Your task to perform on an android device: change timer sound Image 0: 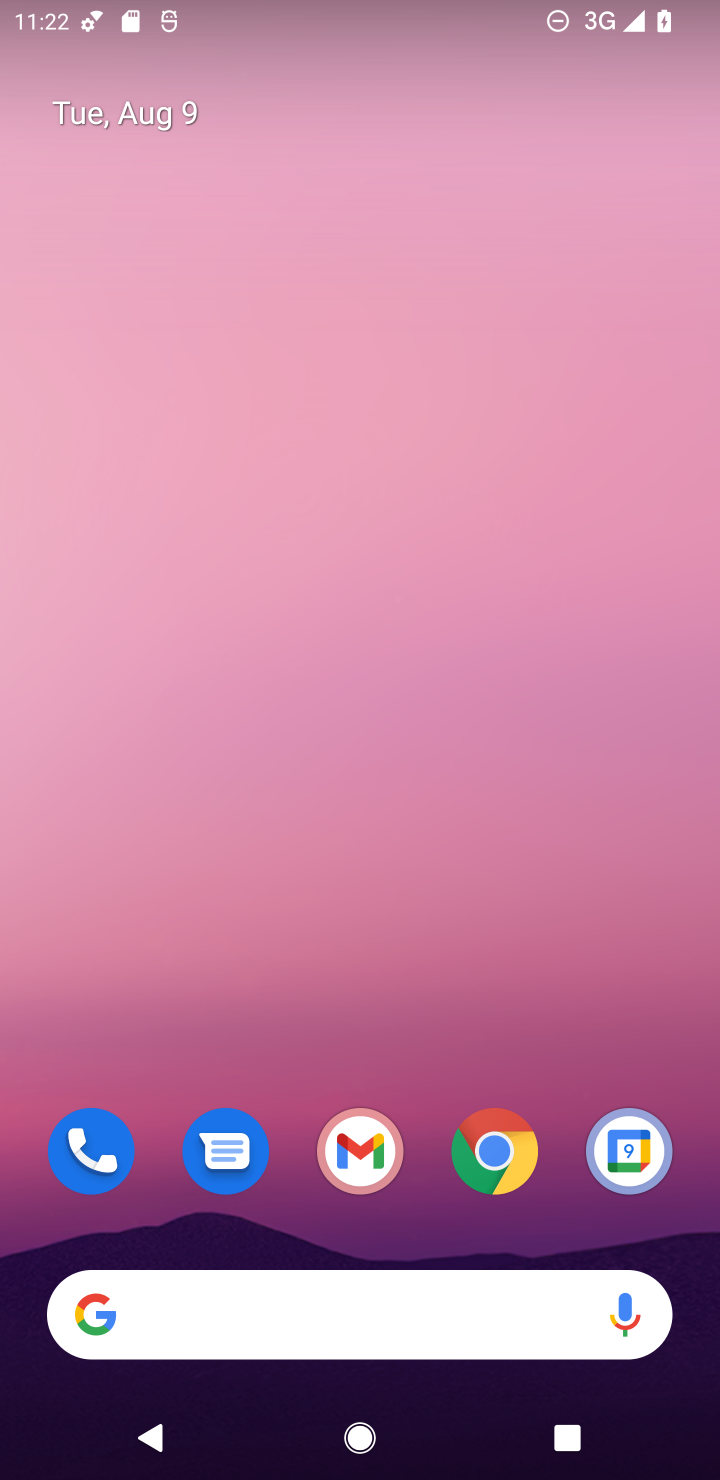
Step 0: drag from (393, 900) to (356, 379)
Your task to perform on an android device: change timer sound Image 1: 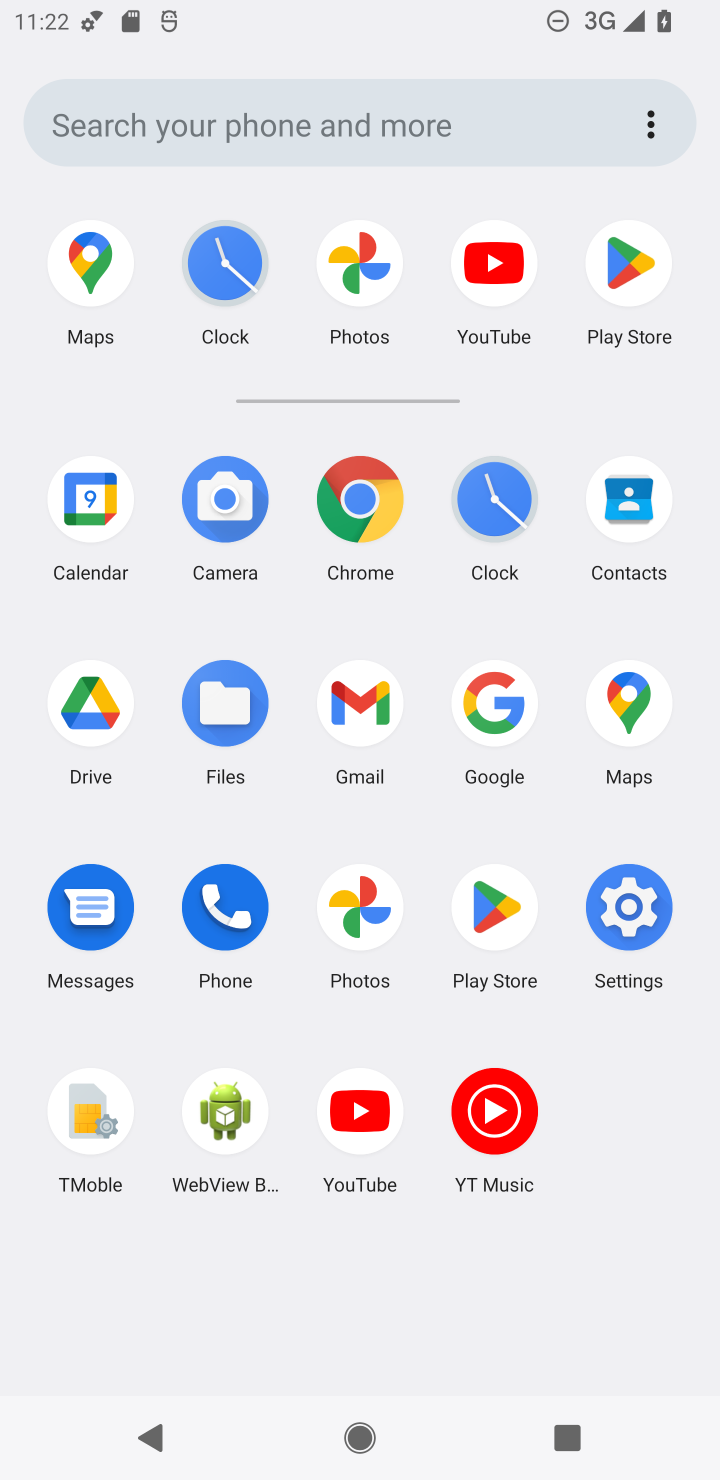
Step 1: click (310, 152)
Your task to perform on an android device: change timer sound Image 2: 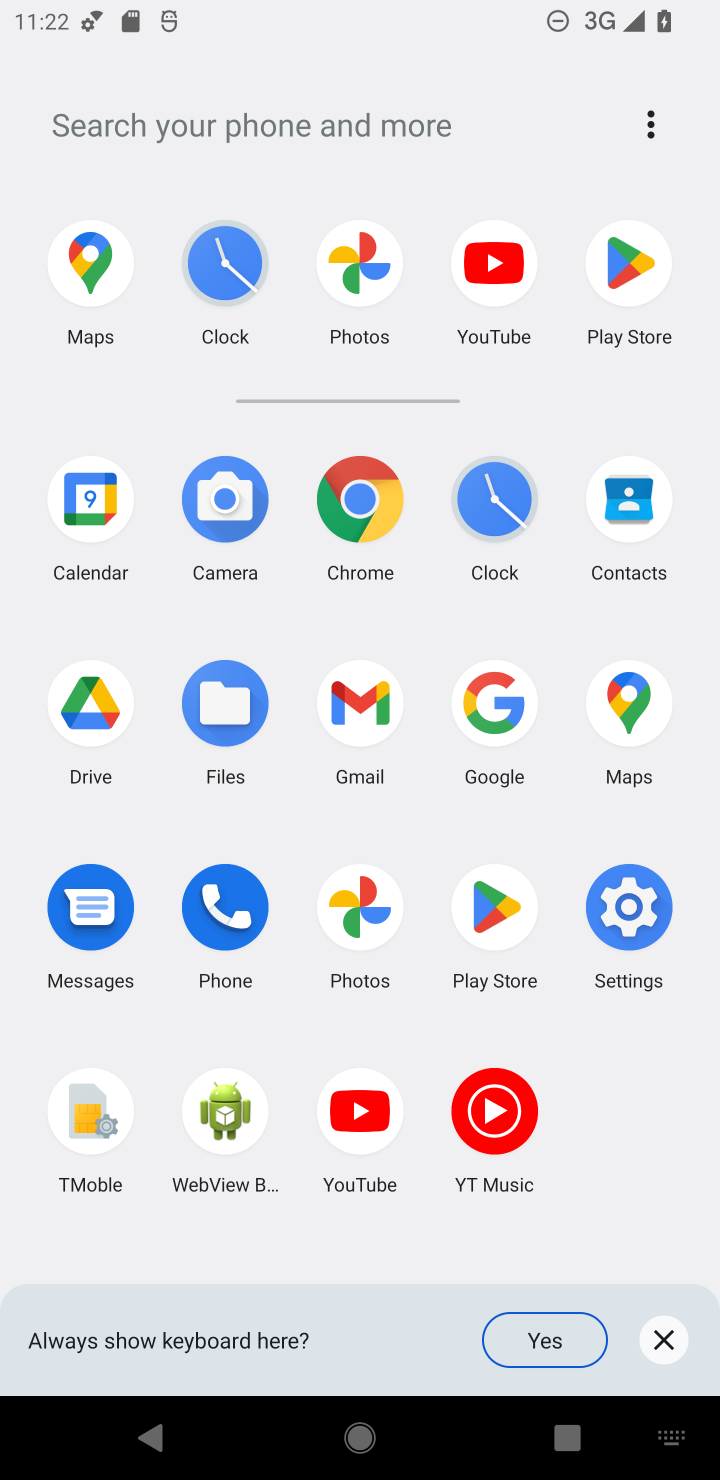
Step 2: click (213, 273)
Your task to perform on an android device: change timer sound Image 3: 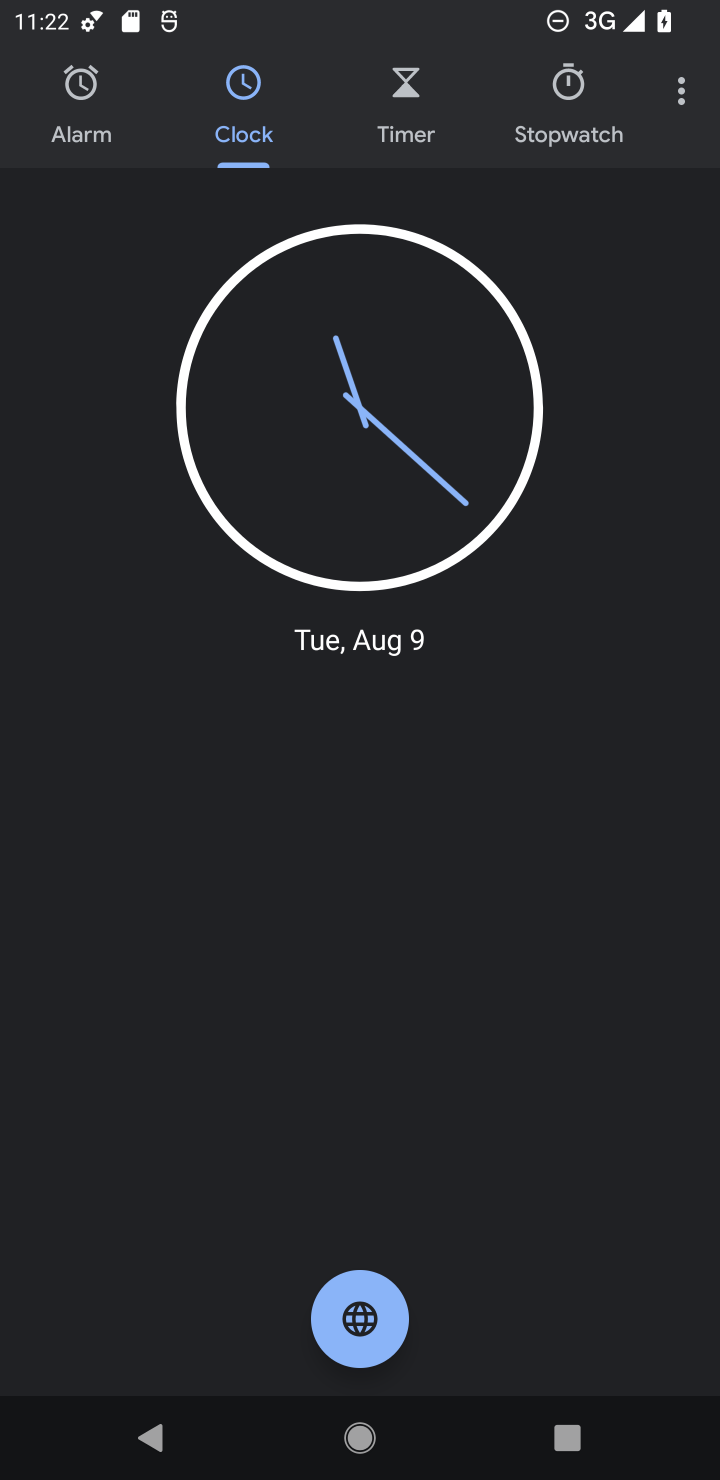
Step 3: click (668, 100)
Your task to perform on an android device: change timer sound Image 4: 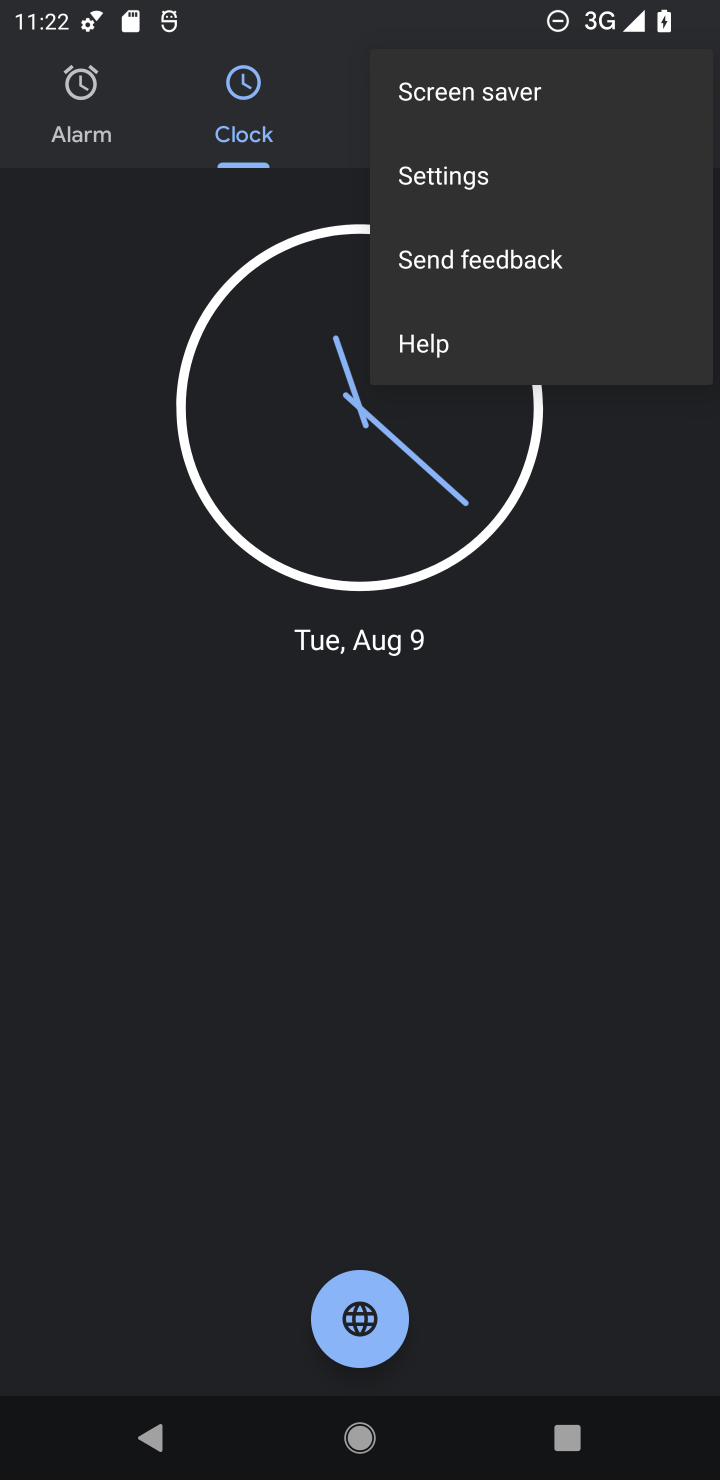
Step 4: click (674, 102)
Your task to perform on an android device: change timer sound Image 5: 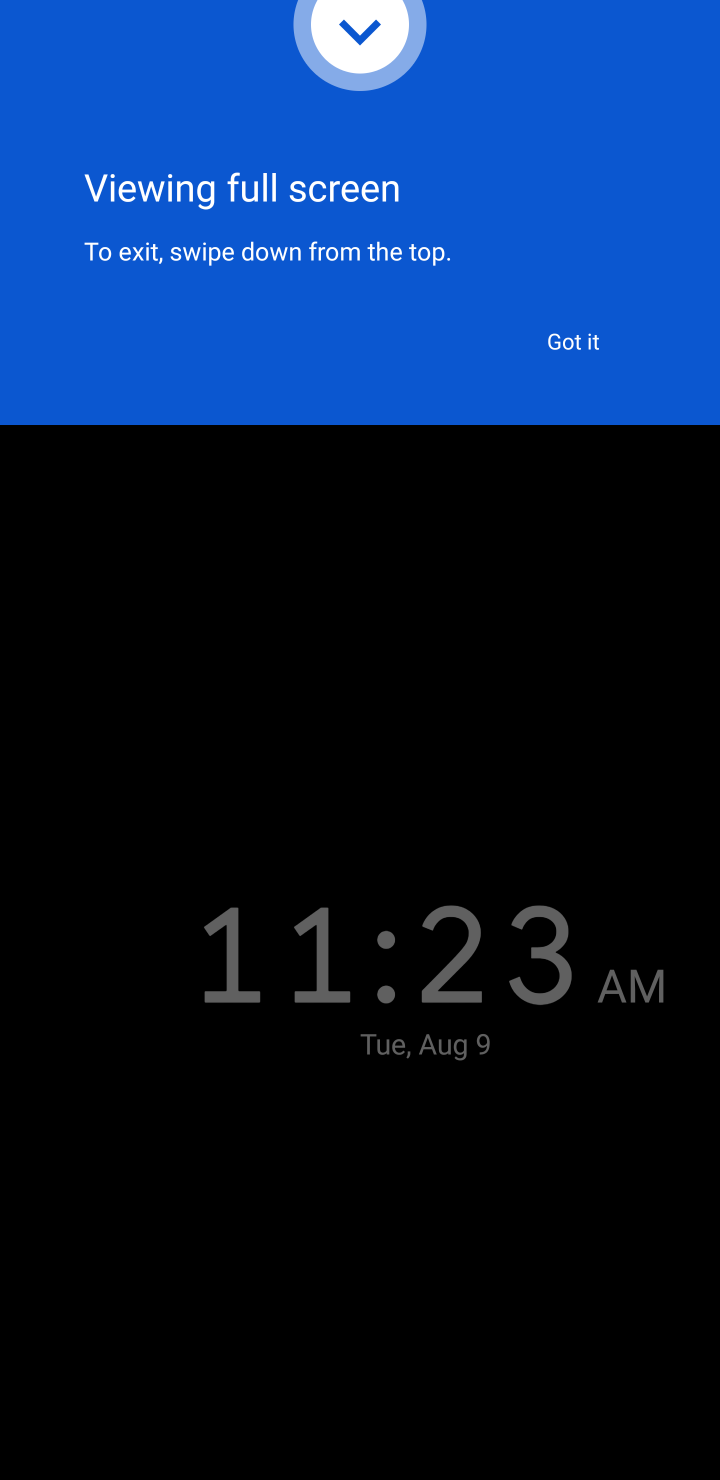
Step 5: click (563, 341)
Your task to perform on an android device: change timer sound Image 6: 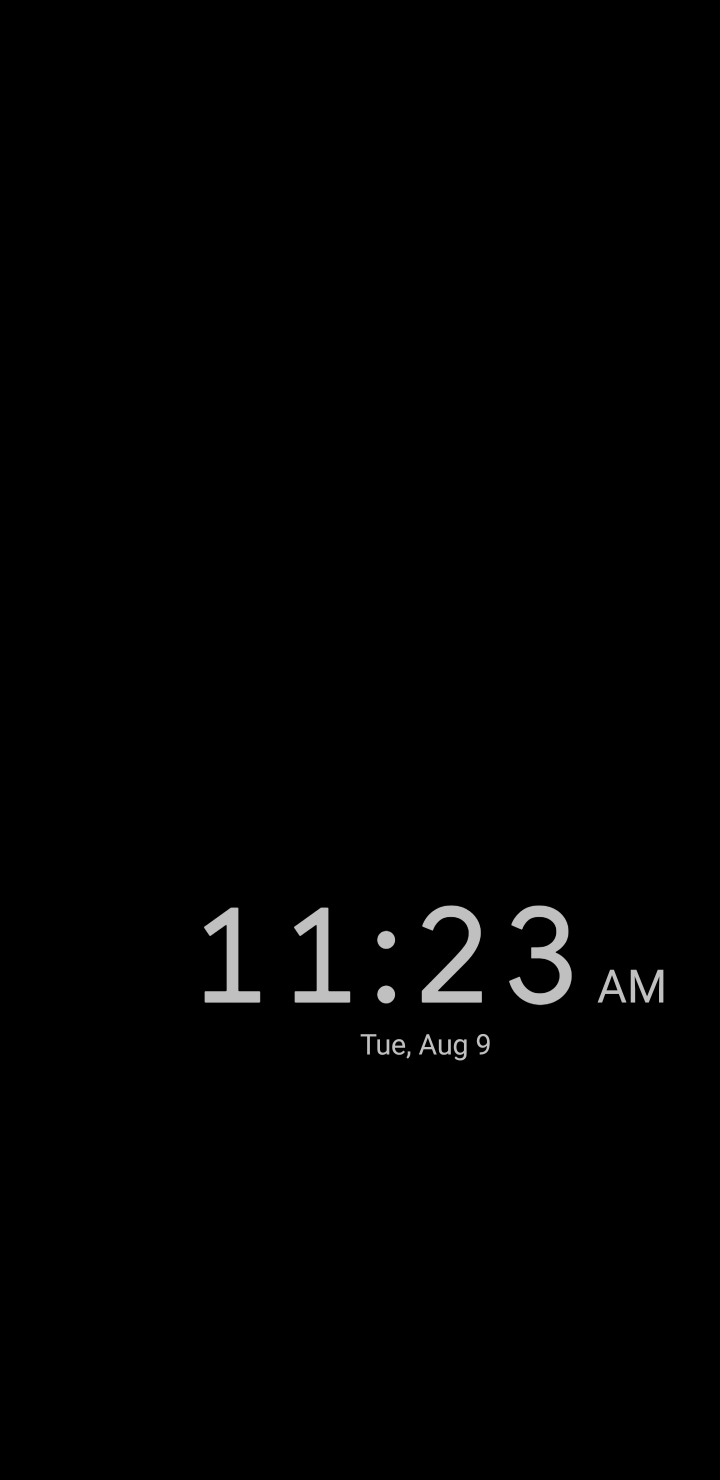
Step 6: click (402, 1126)
Your task to perform on an android device: change timer sound Image 7: 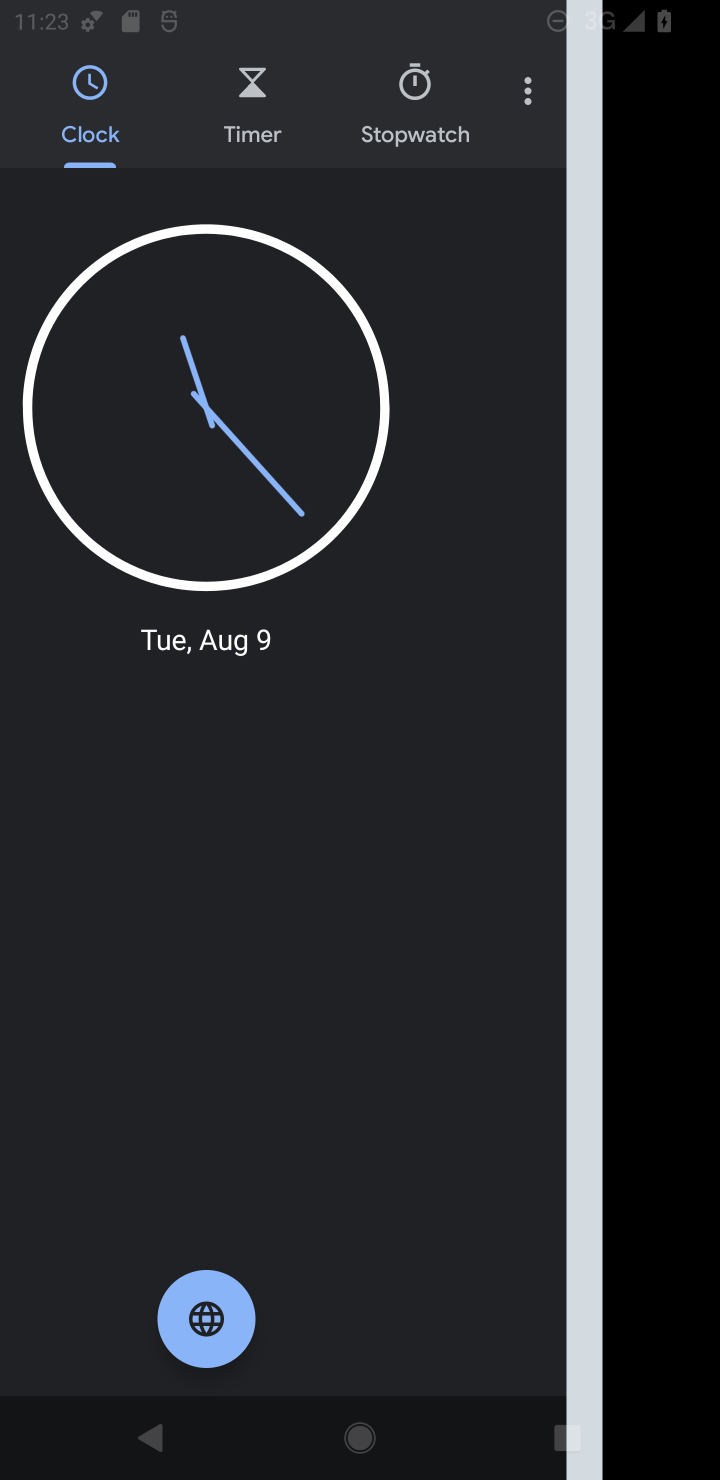
Step 7: click (402, 1126)
Your task to perform on an android device: change timer sound Image 8: 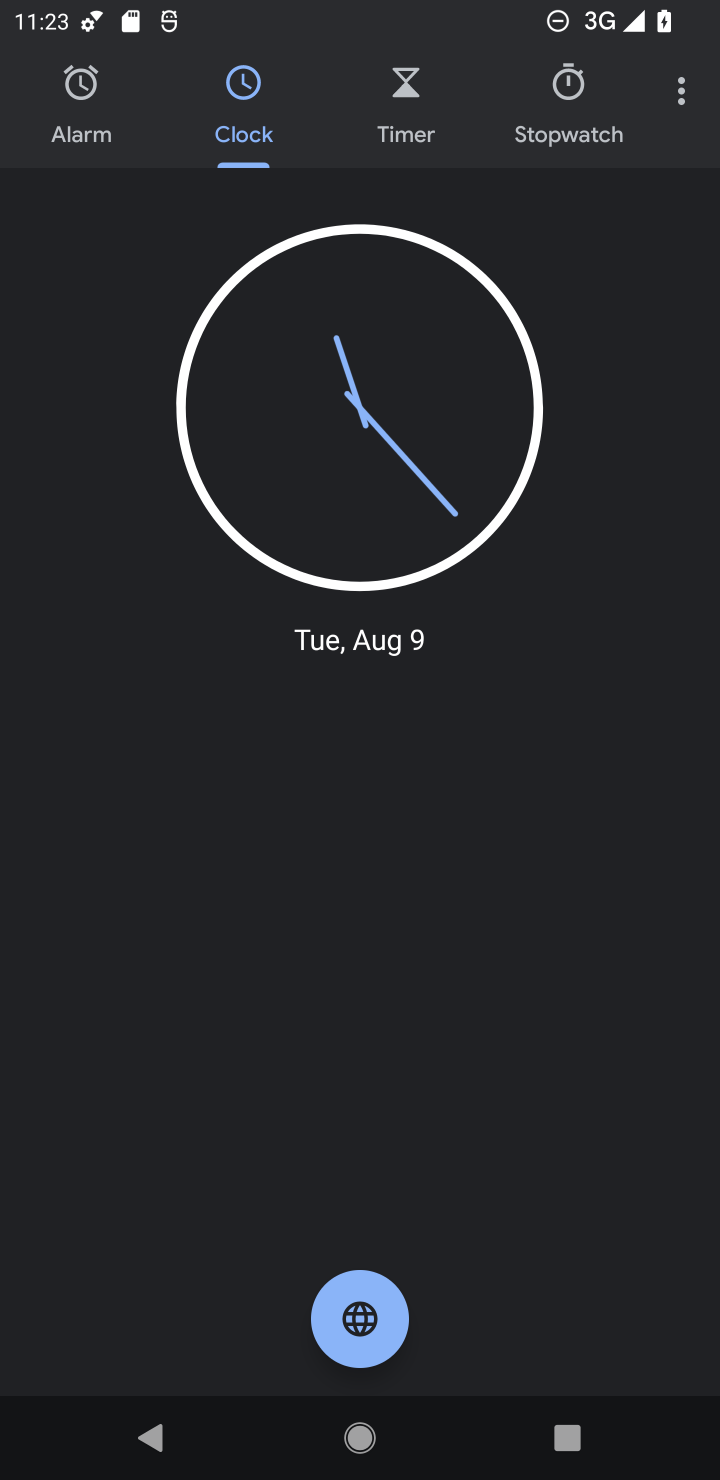
Step 8: click (676, 81)
Your task to perform on an android device: change timer sound Image 9: 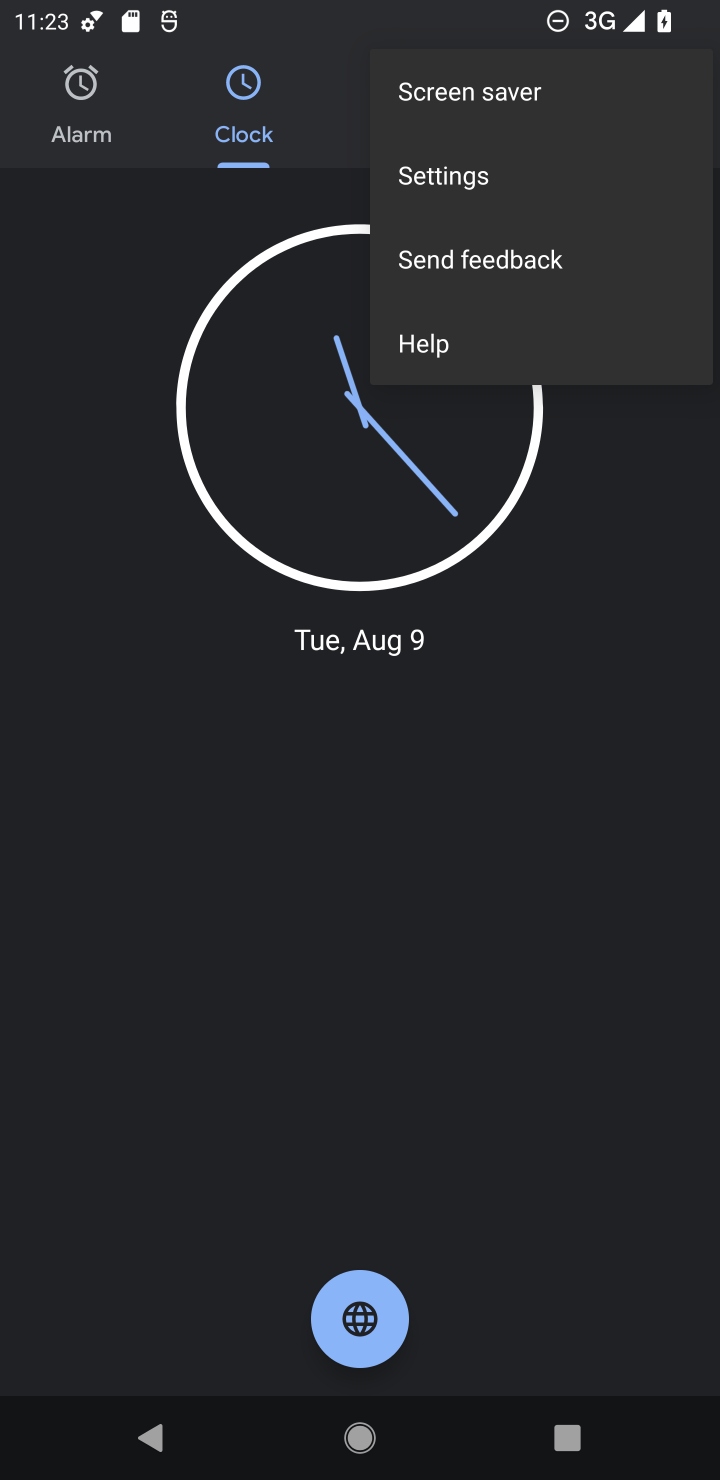
Step 9: click (517, 198)
Your task to perform on an android device: change timer sound Image 10: 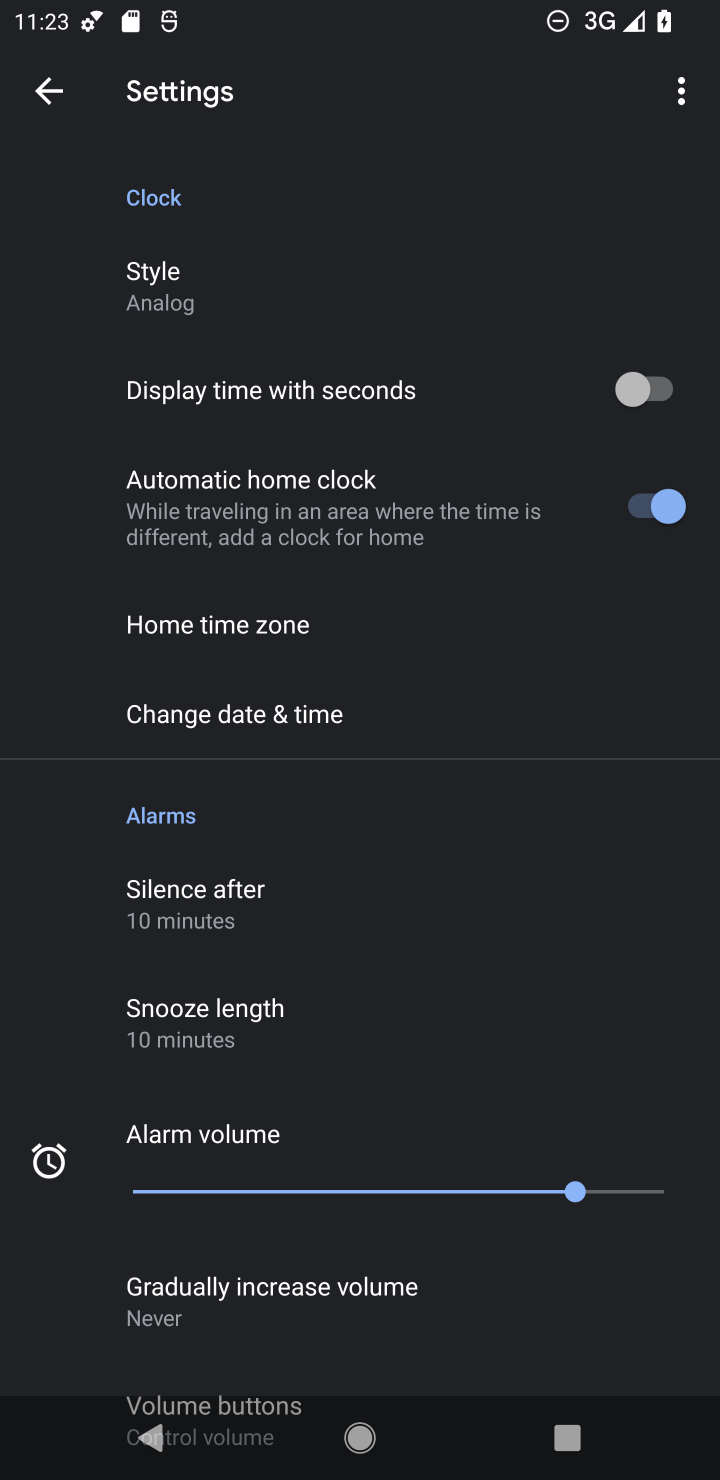
Step 10: drag from (505, 780) to (495, 392)
Your task to perform on an android device: change timer sound Image 11: 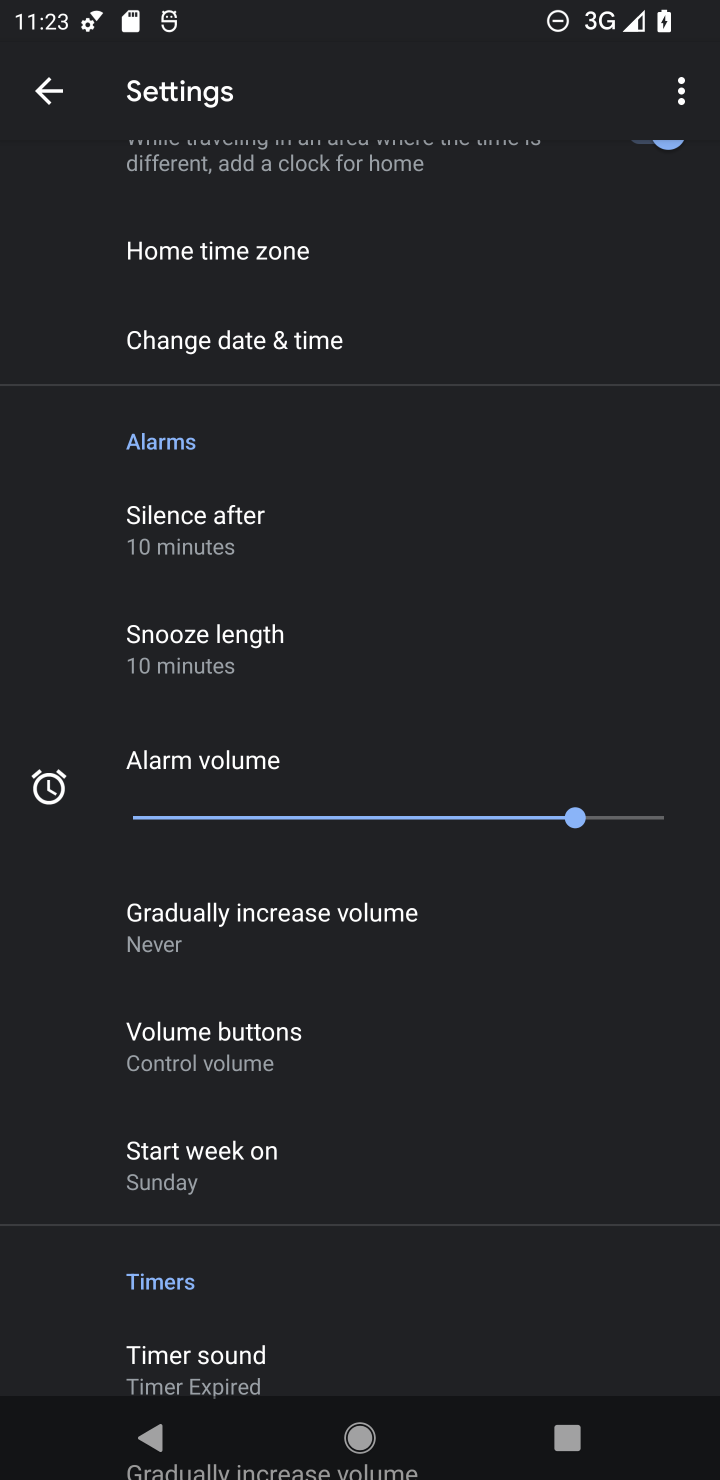
Step 11: drag from (467, 1139) to (422, 211)
Your task to perform on an android device: change timer sound Image 12: 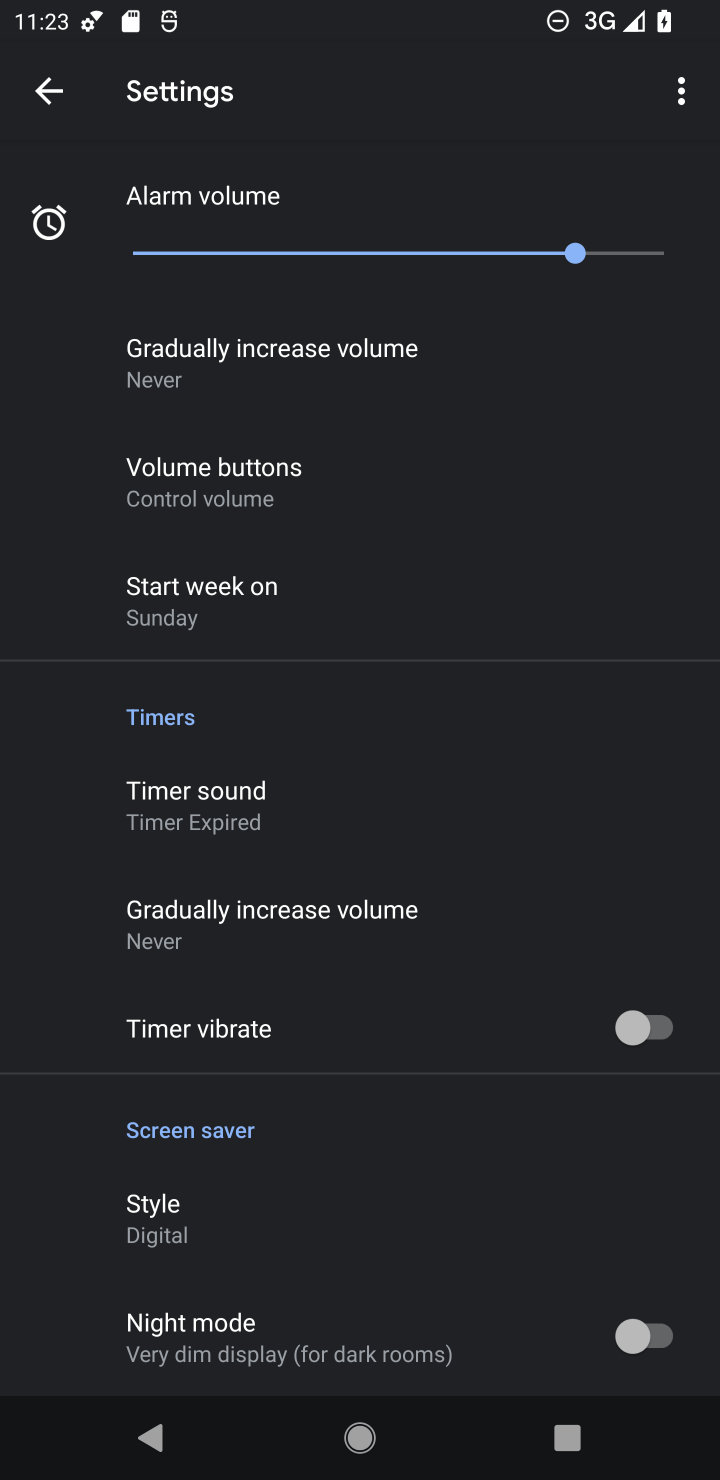
Step 12: drag from (470, 1071) to (437, 575)
Your task to perform on an android device: change timer sound Image 13: 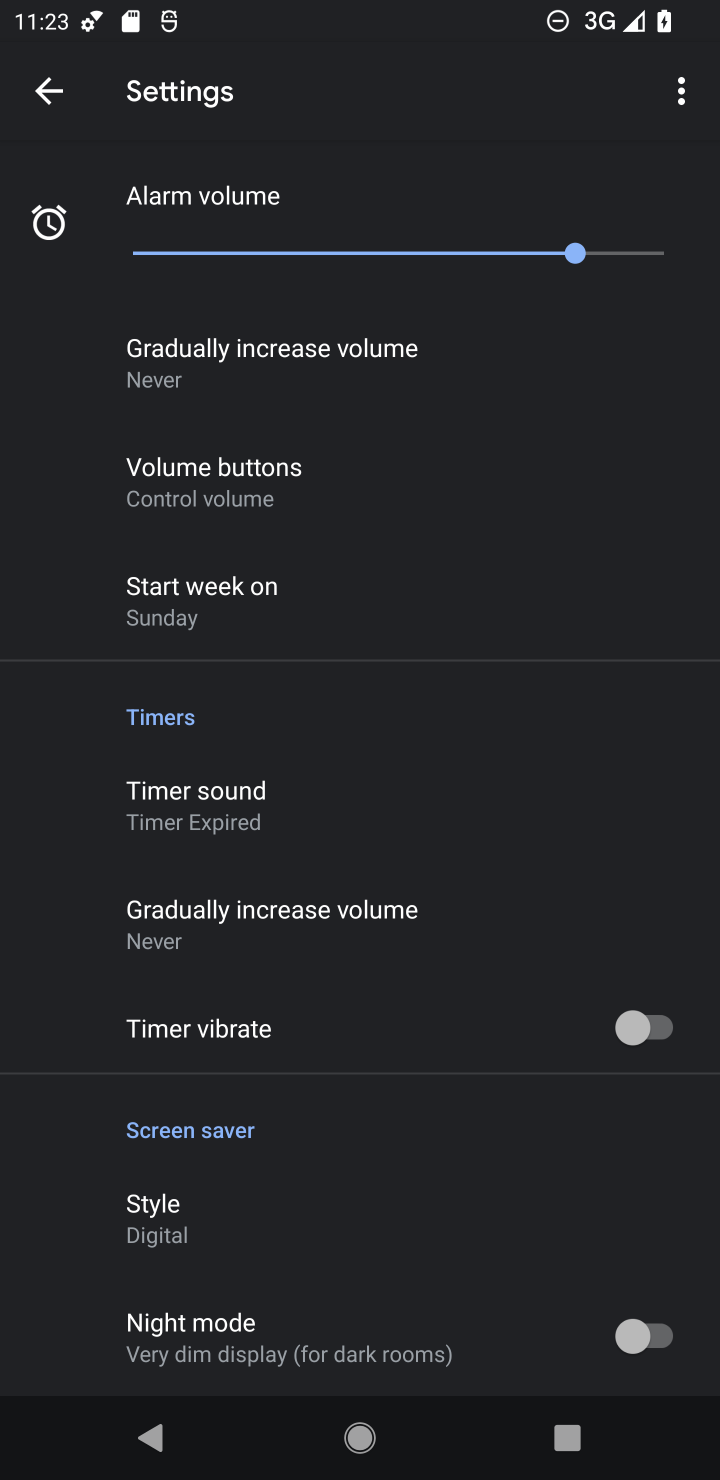
Step 13: click (333, 822)
Your task to perform on an android device: change timer sound Image 14: 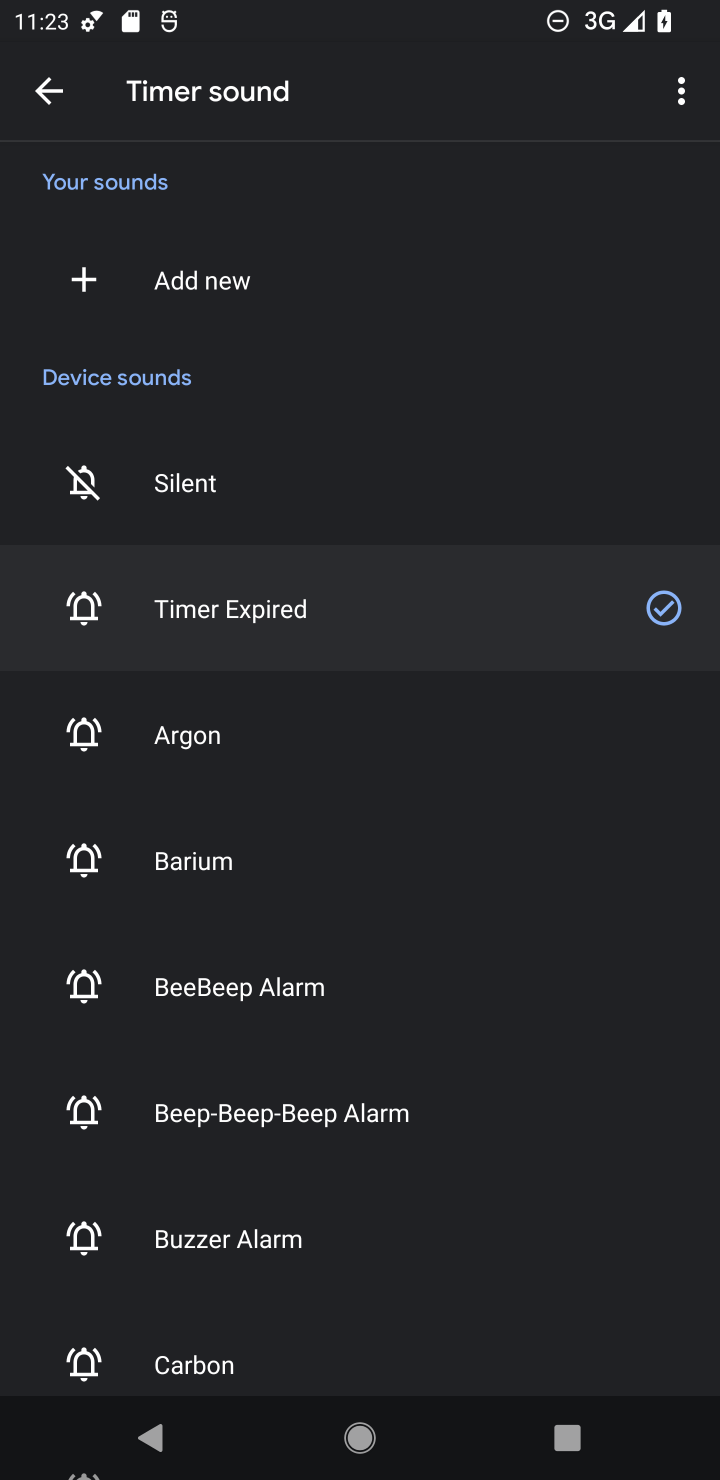
Step 14: click (198, 785)
Your task to perform on an android device: change timer sound Image 15: 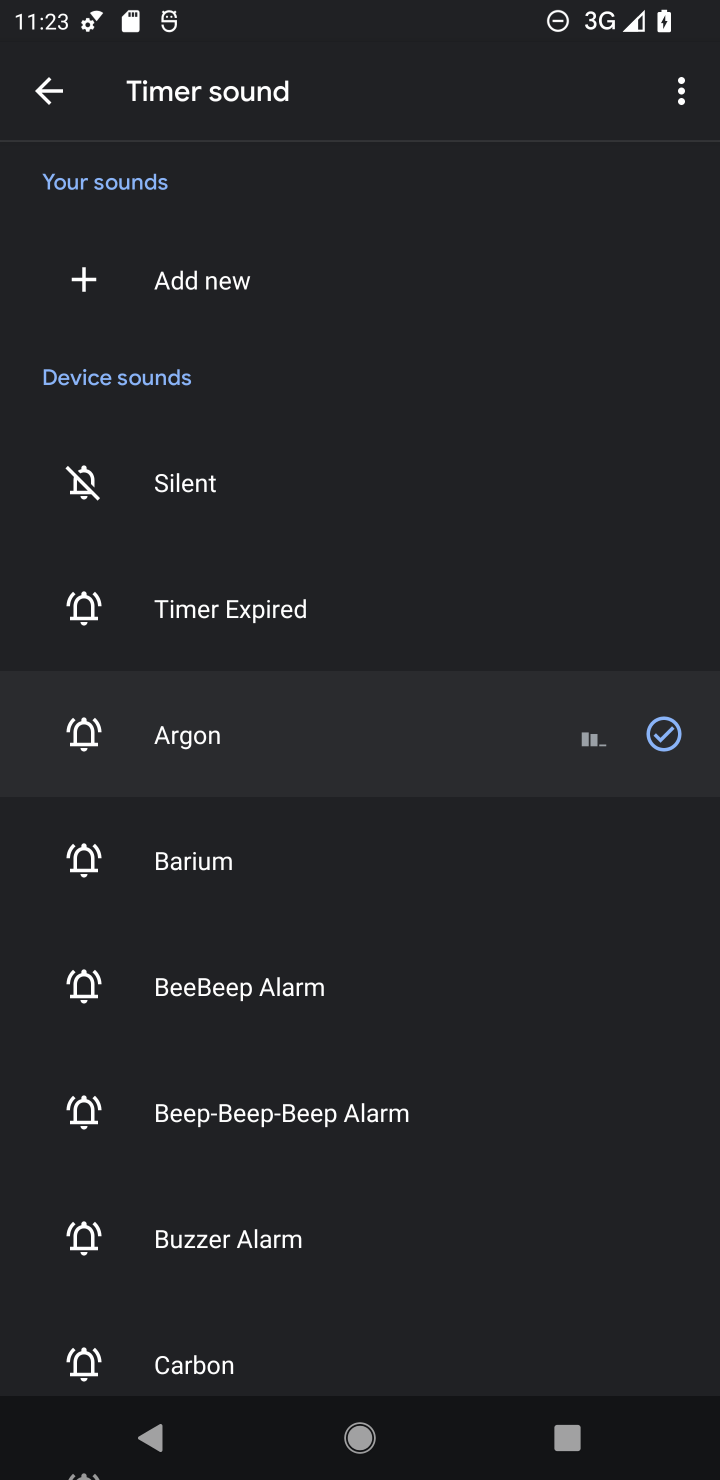
Step 15: task complete